Your task to perform on an android device: set the stopwatch Image 0: 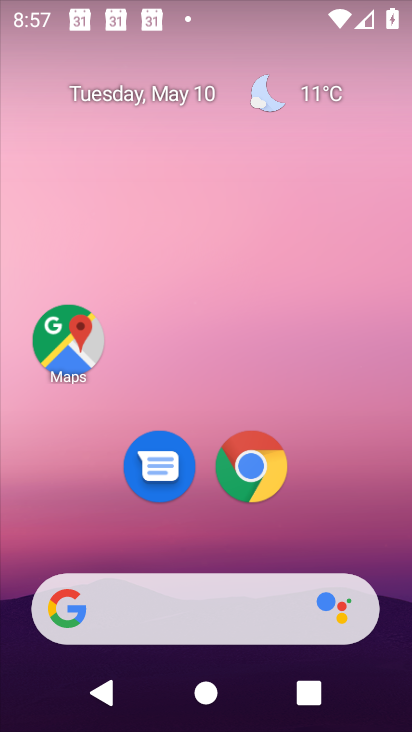
Step 0: drag from (239, 550) to (216, 11)
Your task to perform on an android device: set the stopwatch Image 1: 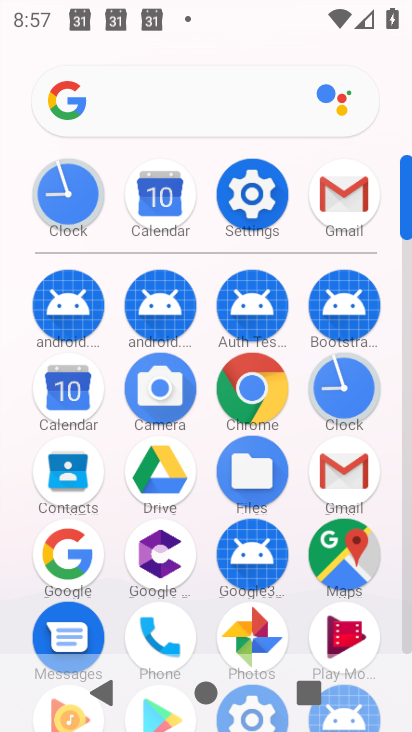
Step 1: click (347, 389)
Your task to perform on an android device: set the stopwatch Image 2: 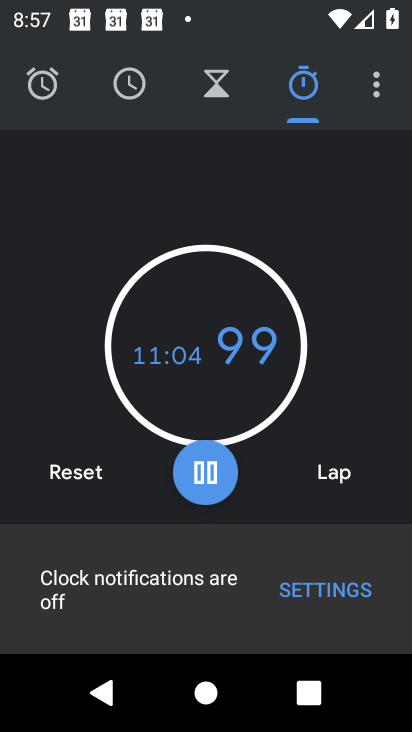
Step 2: click (76, 470)
Your task to perform on an android device: set the stopwatch Image 3: 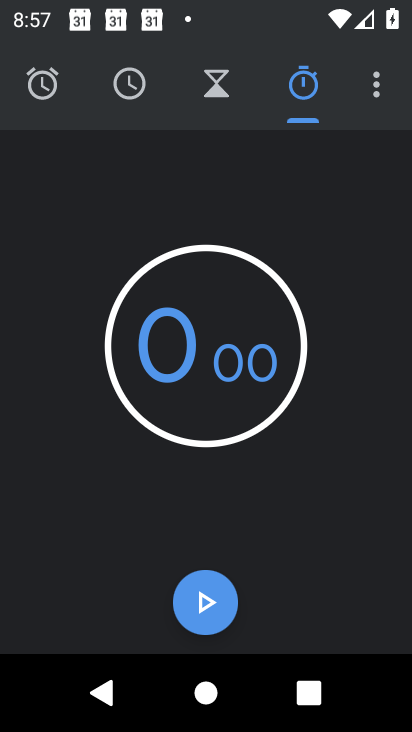
Step 3: click (192, 485)
Your task to perform on an android device: set the stopwatch Image 4: 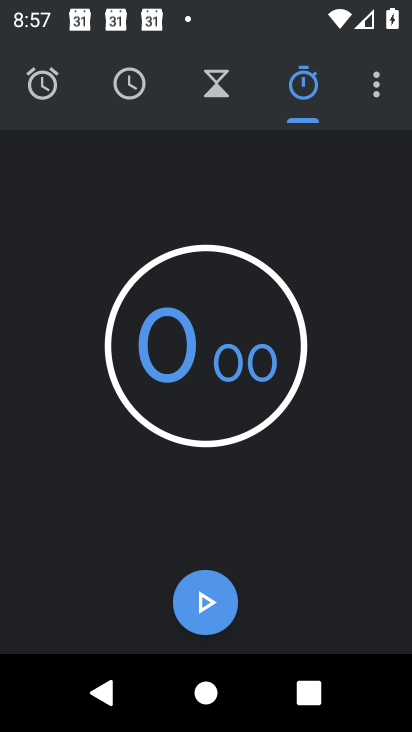
Step 4: click (204, 603)
Your task to perform on an android device: set the stopwatch Image 5: 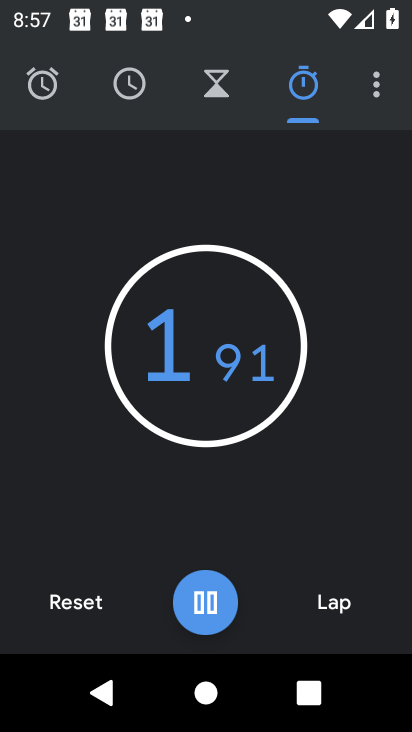
Step 5: task complete